Your task to perform on an android device: Do I have any events tomorrow? Image 0: 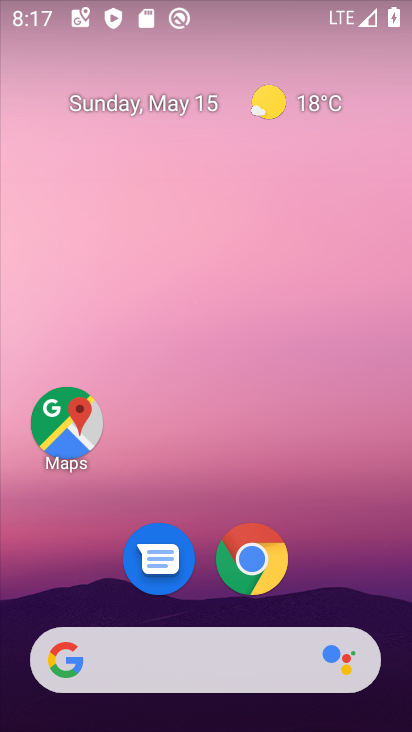
Step 0: drag from (303, 576) to (203, 314)
Your task to perform on an android device: Do I have any events tomorrow? Image 1: 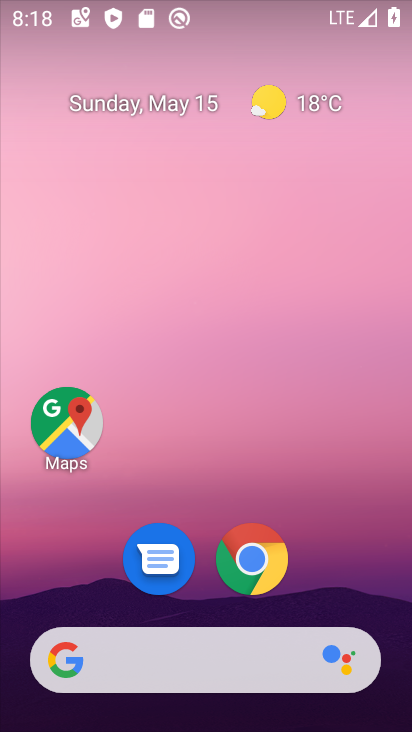
Step 1: drag from (183, 446) to (59, 7)
Your task to perform on an android device: Do I have any events tomorrow? Image 2: 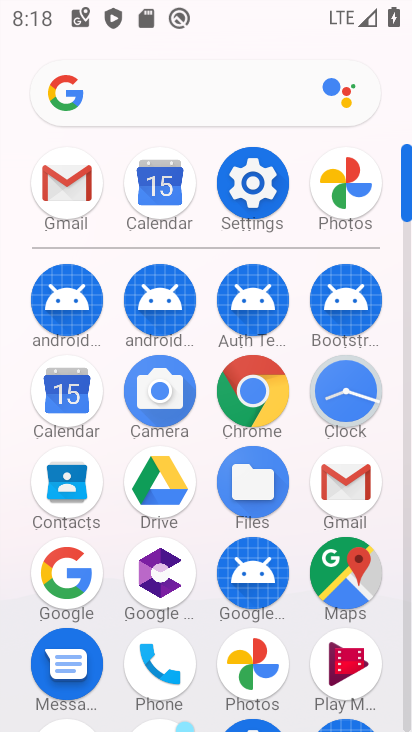
Step 2: click (64, 391)
Your task to perform on an android device: Do I have any events tomorrow? Image 3: 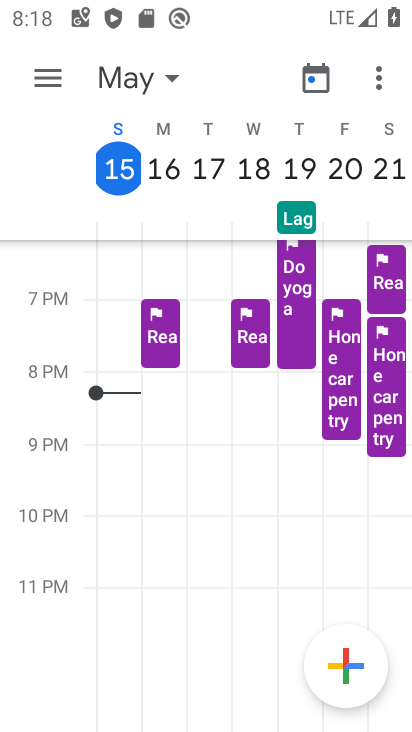
Step 3: click (160, 169)
Your task to perform on an android device: Do I have any events tomorrow? Image 4: 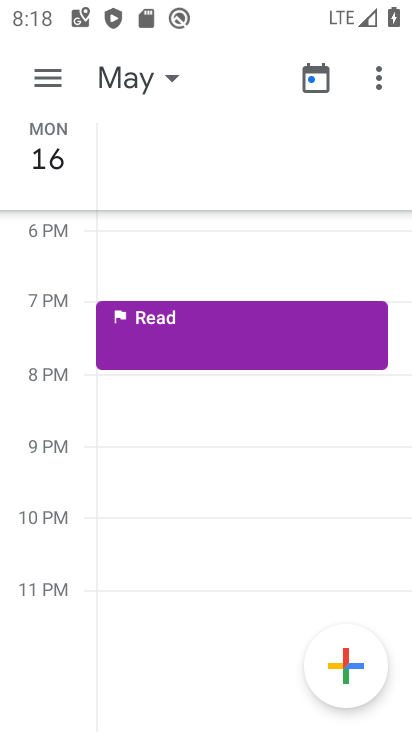
Step 4: task complete